Your task to perform on an android device: check storage Image 0: 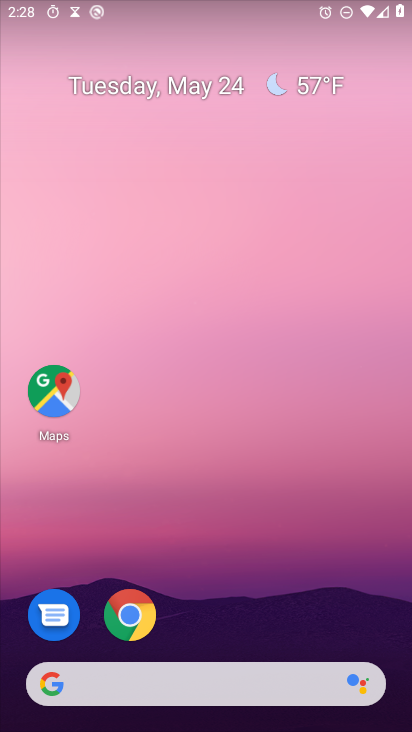
Step 0: drag from (223, 648) to (188, 276)
Your task to perform on an android device: check storage Image 1: 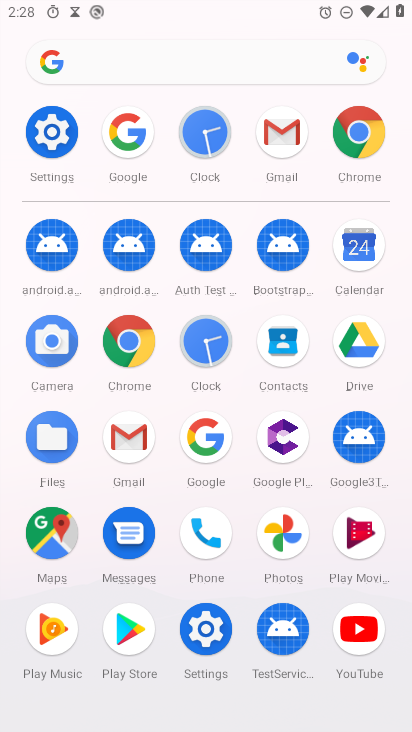
Step 1: click (44, 140)
Your task to perform on an android device: check storage Image 2: 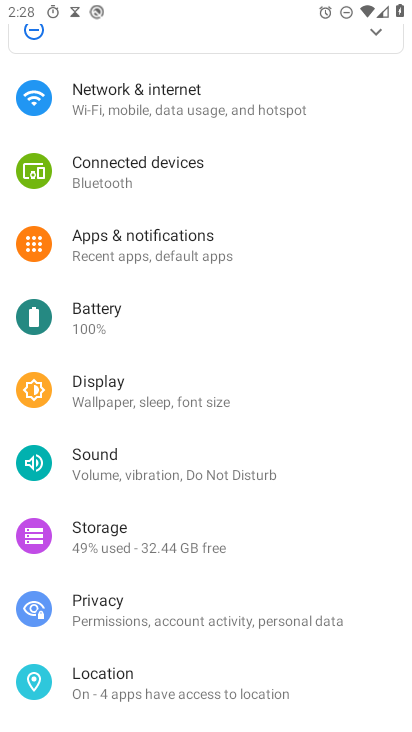
Step 2: click (109, 541)
Your task to perform on an android device: check storage Image 3: 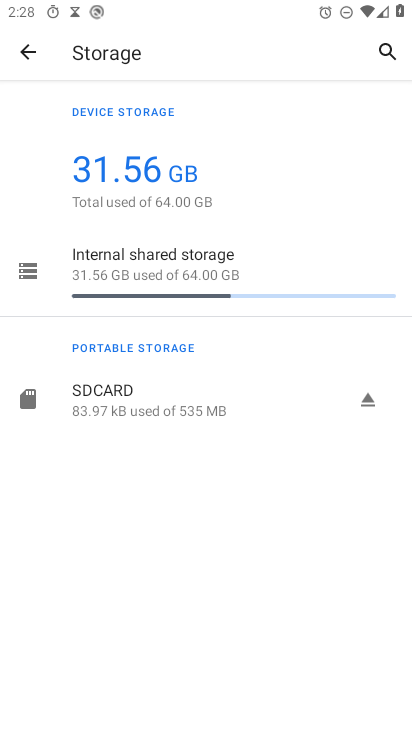
Step 3: task complete